Your task to perform on an android device: What's the weather going to be this weekend? Image 0: 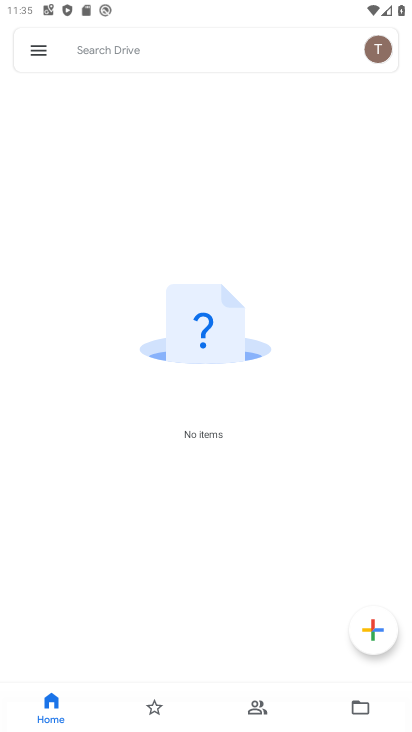
Step 0: press home button
Your task to perform on an android device: What's the weather going to be this weekend? Image 1: 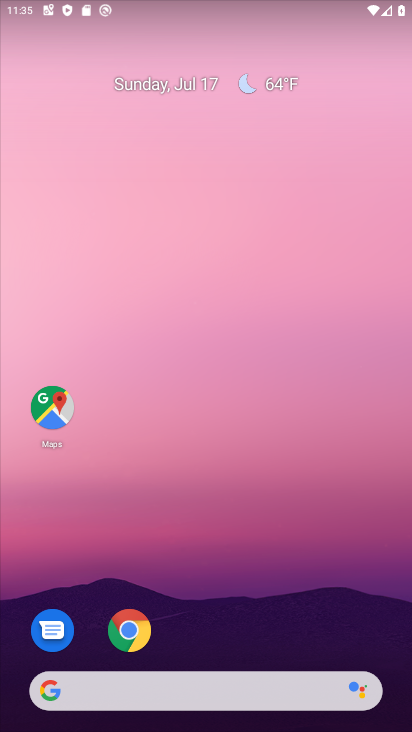
Step 1: click (202, 682)
Your task to perform on an android device: What's the weather going to be this weekend? Image 2: 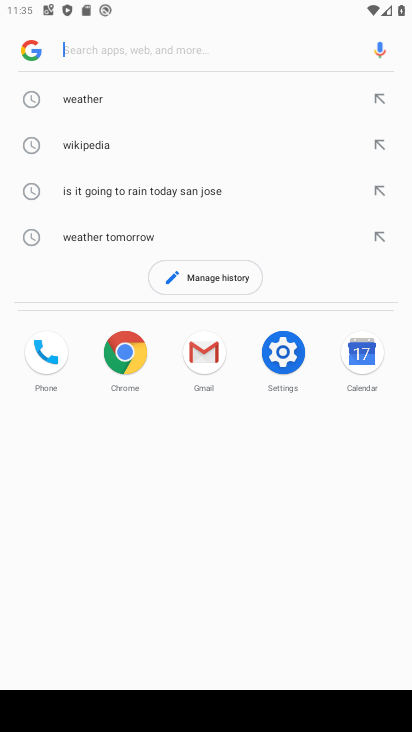
Step 2: click (76, 102)
Your task to perform on an android device: What's the weather going to be this weekend? Image 3: 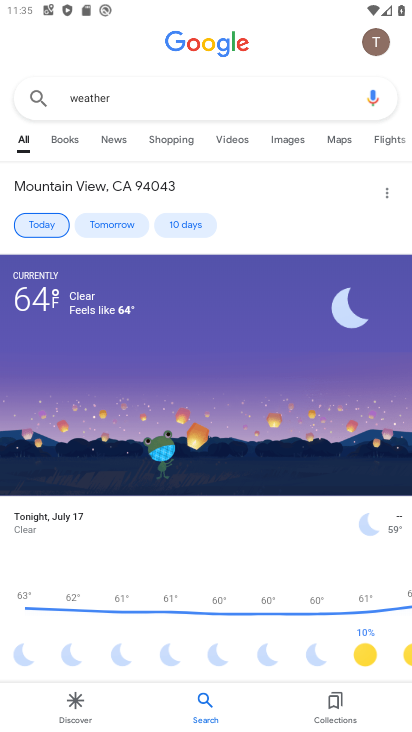
Step 3: click (182, 227)
Your task to perform on an android device: What's the weather going to be this weekend? Image 4: 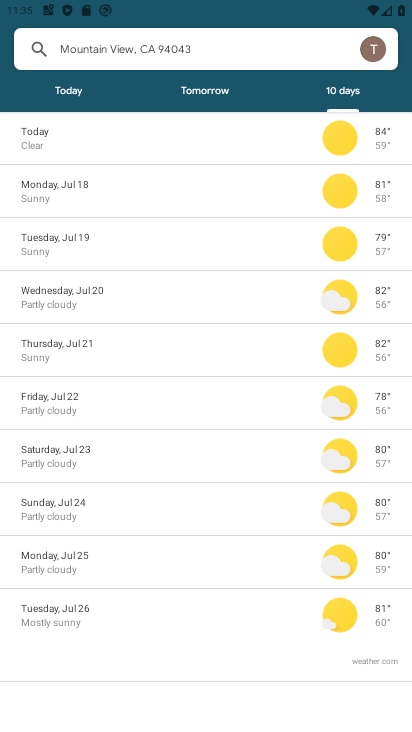
Step 4: task complete